Your task to perform on an android device: open app "Calculator" (install if not already installed) Image 0: 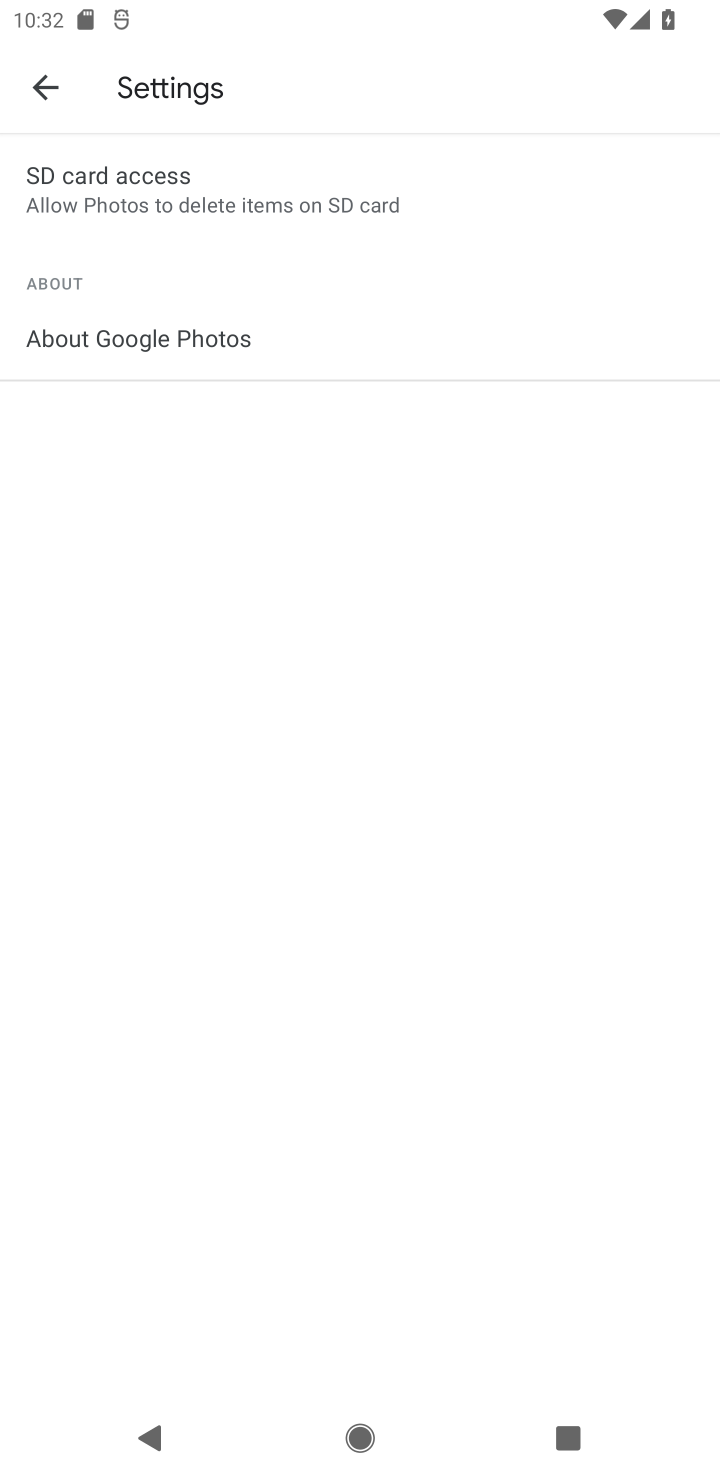
Step 0: press home button
Your task to perform on an android device: open app "Calculator" (install if not already installed) Image 1: 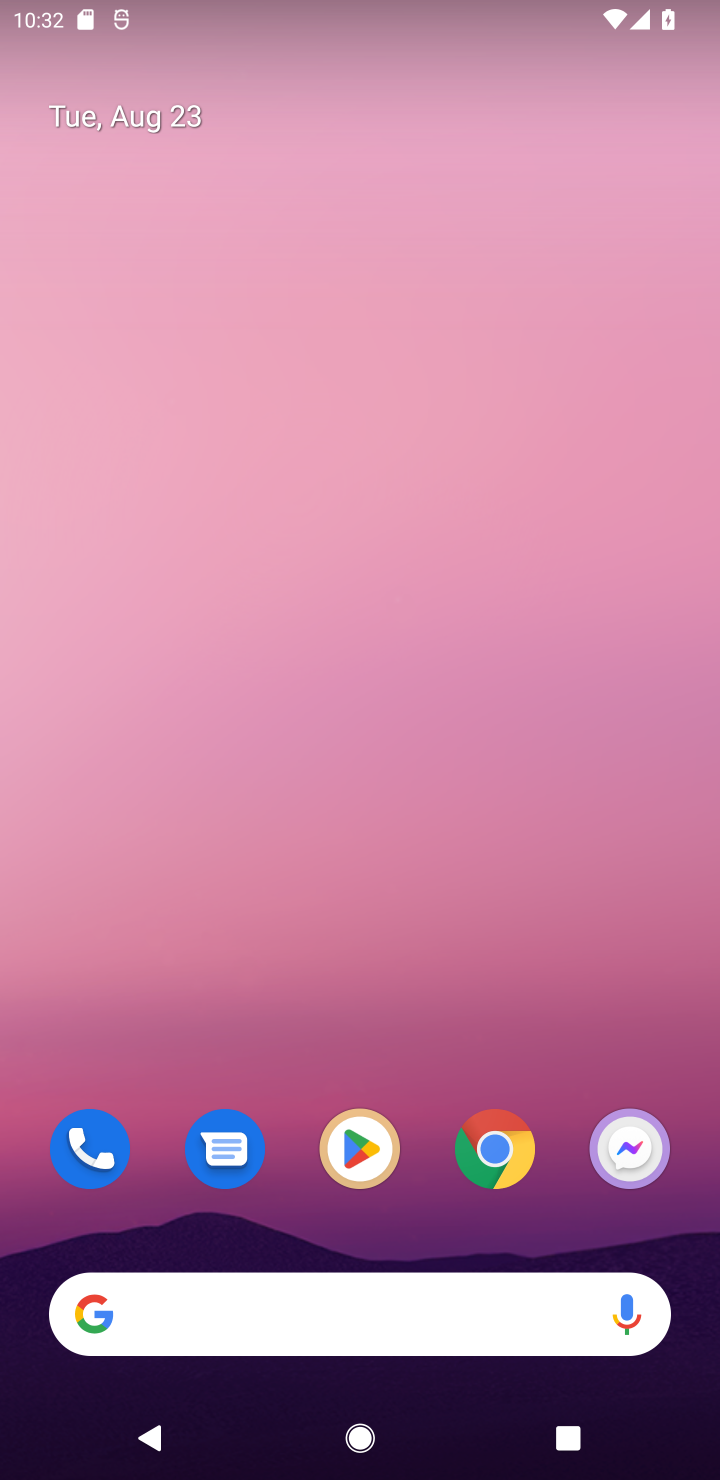
Step 1: click (317, 1147)
Your task to perform on an android device: open app "Calculator" (install if not already installed) Image 2: 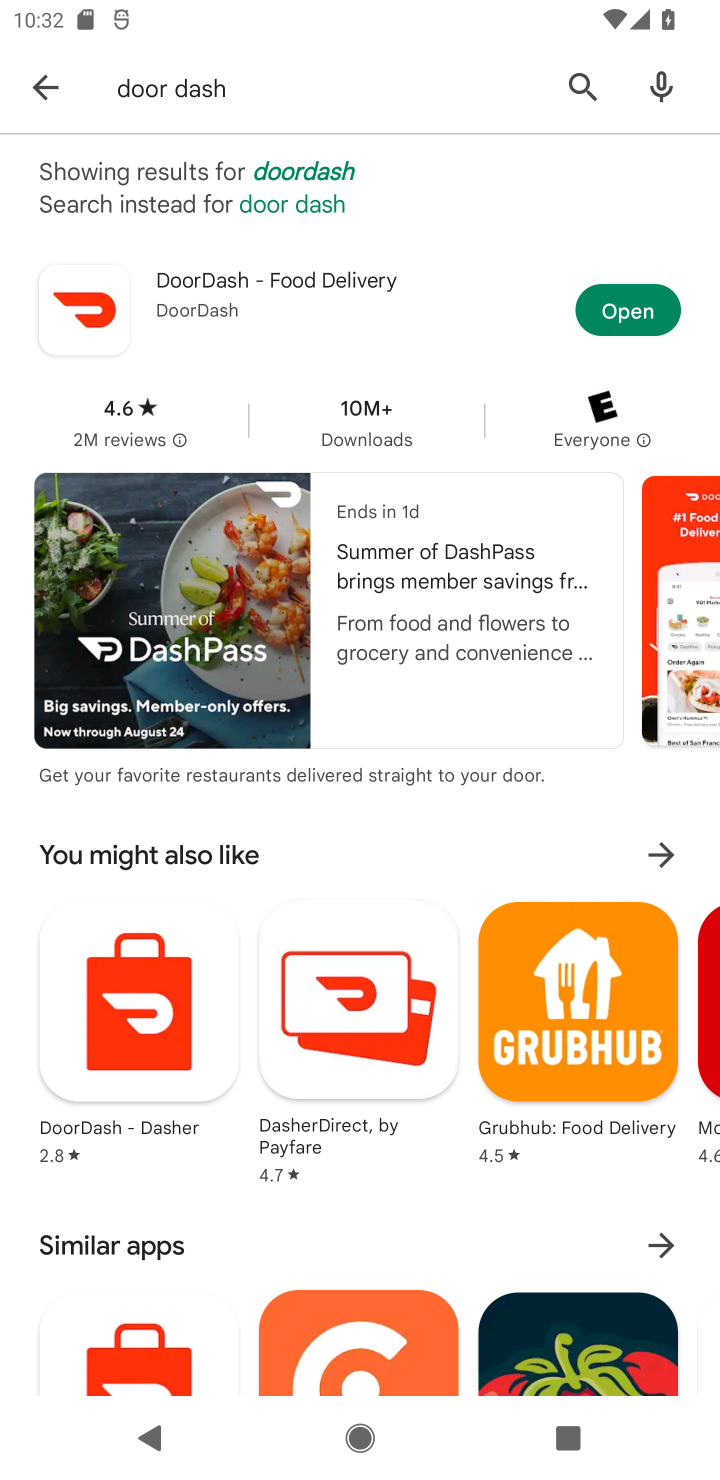
Step 2: click (572, 90)
Your task to perform on an android device: open app "Calculator" (install if not already installed) Image 3: 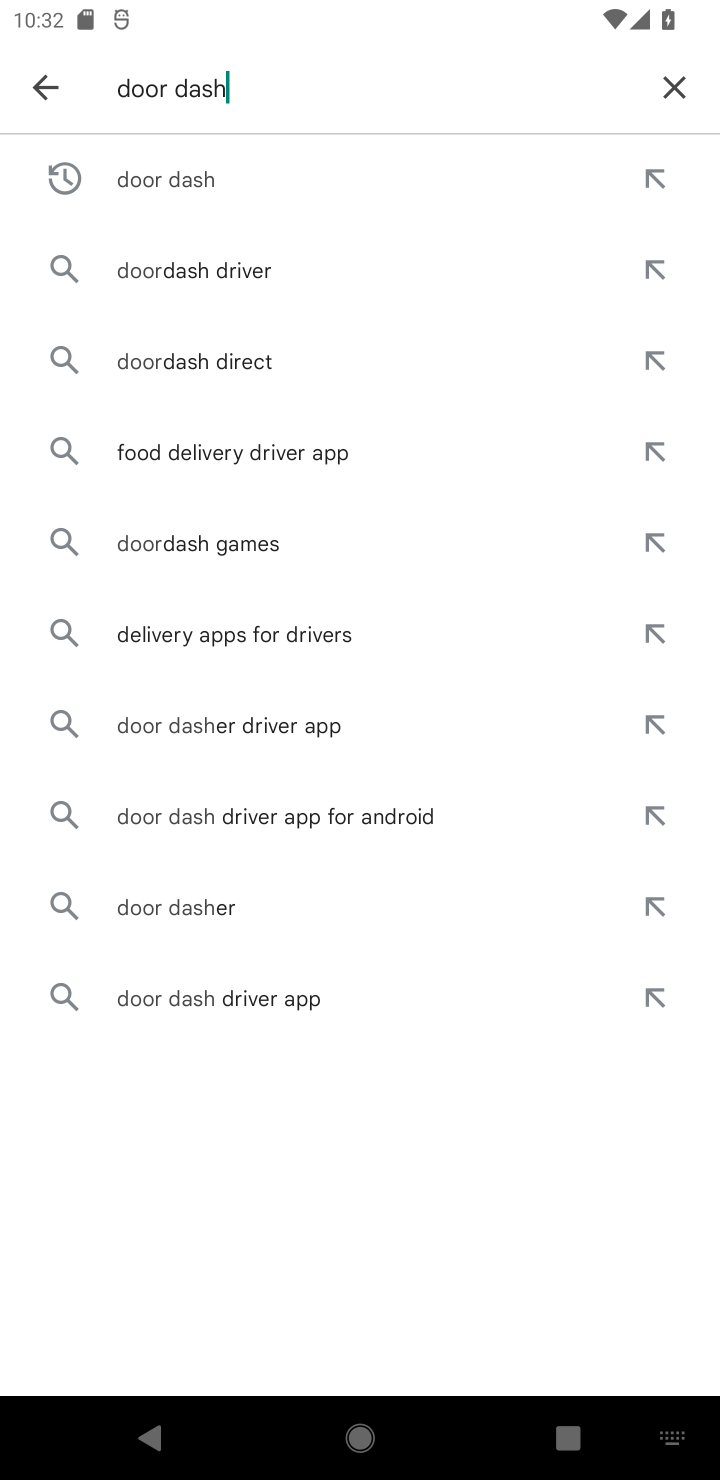
Step 3: click (657, 90)
Your task to perform on an android device: open app "Calculator" (install if not already installed) Image 4: 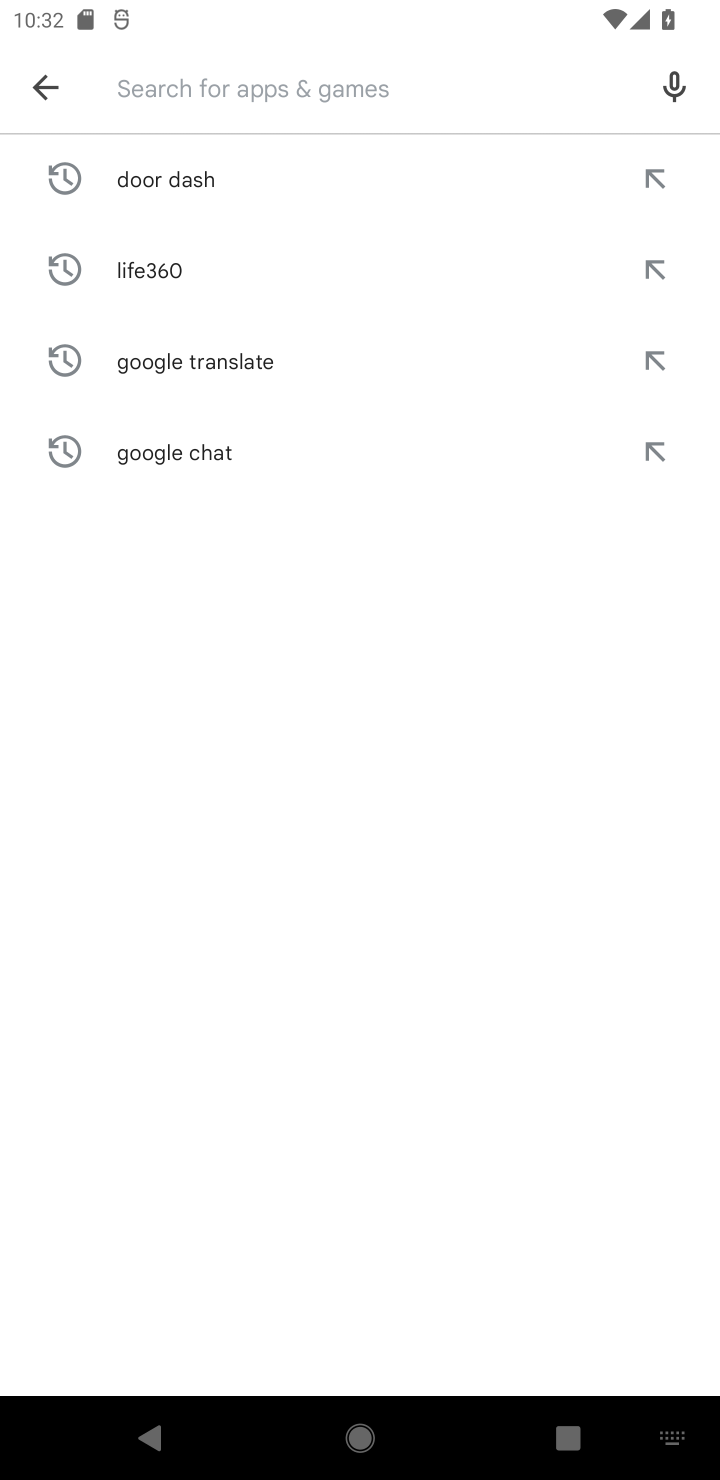
Step 4: type "calculator"
Your task to perform on an android device: open app "Calculator" (install if not already installed) Image 5: 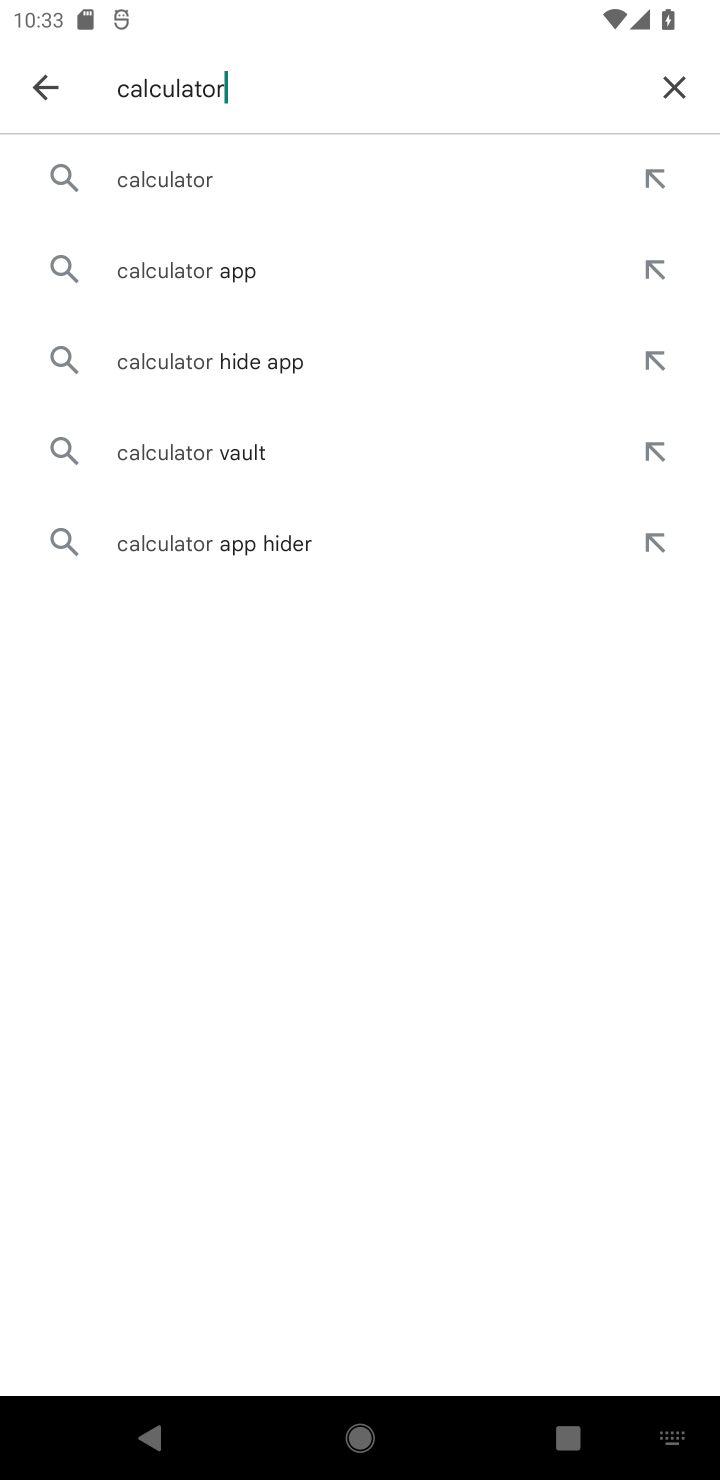
Step 5: click (206, 177)
Your task to perform on an android device: open app "Calculator" (install if not already installed) Image 6: 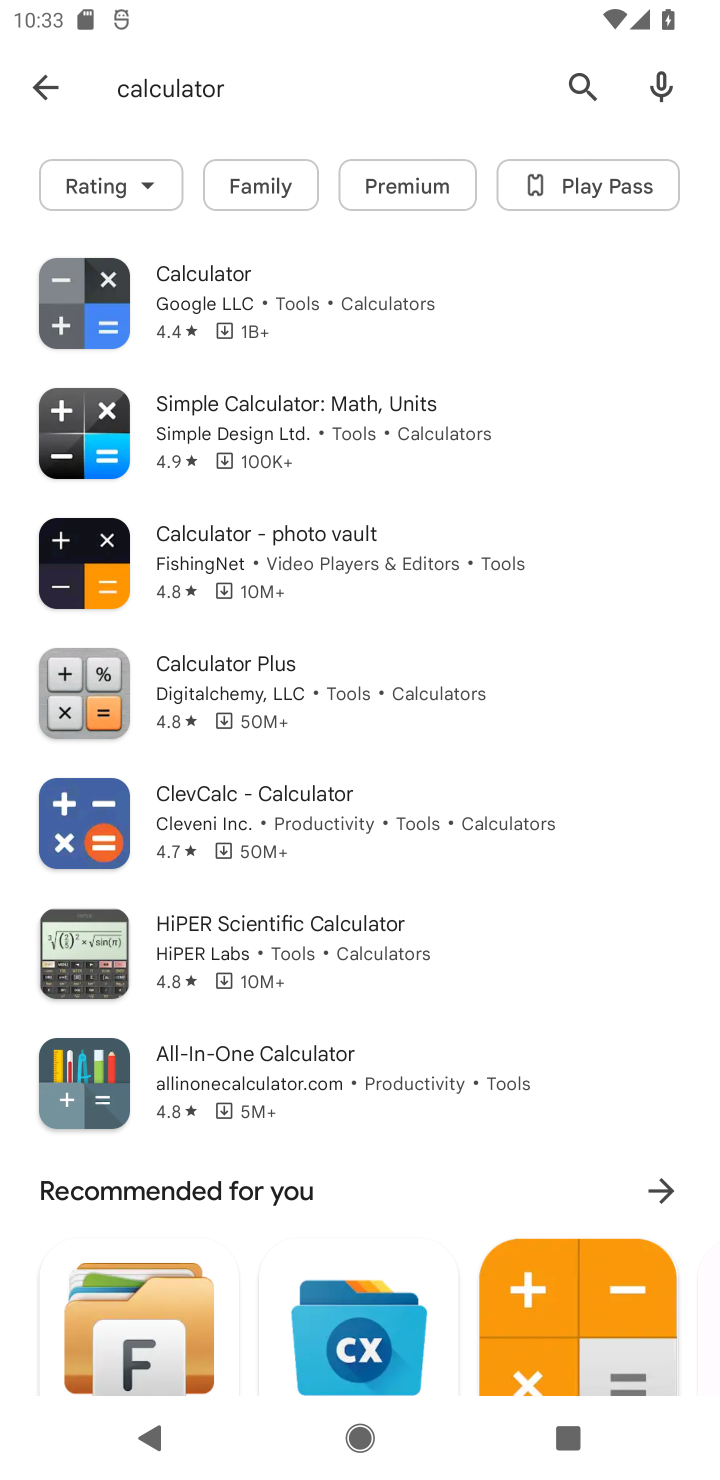
Step 6: click (330, 274)
Your task to perform on an android device: open app "Calculator" (install if not already installed) Image 7: 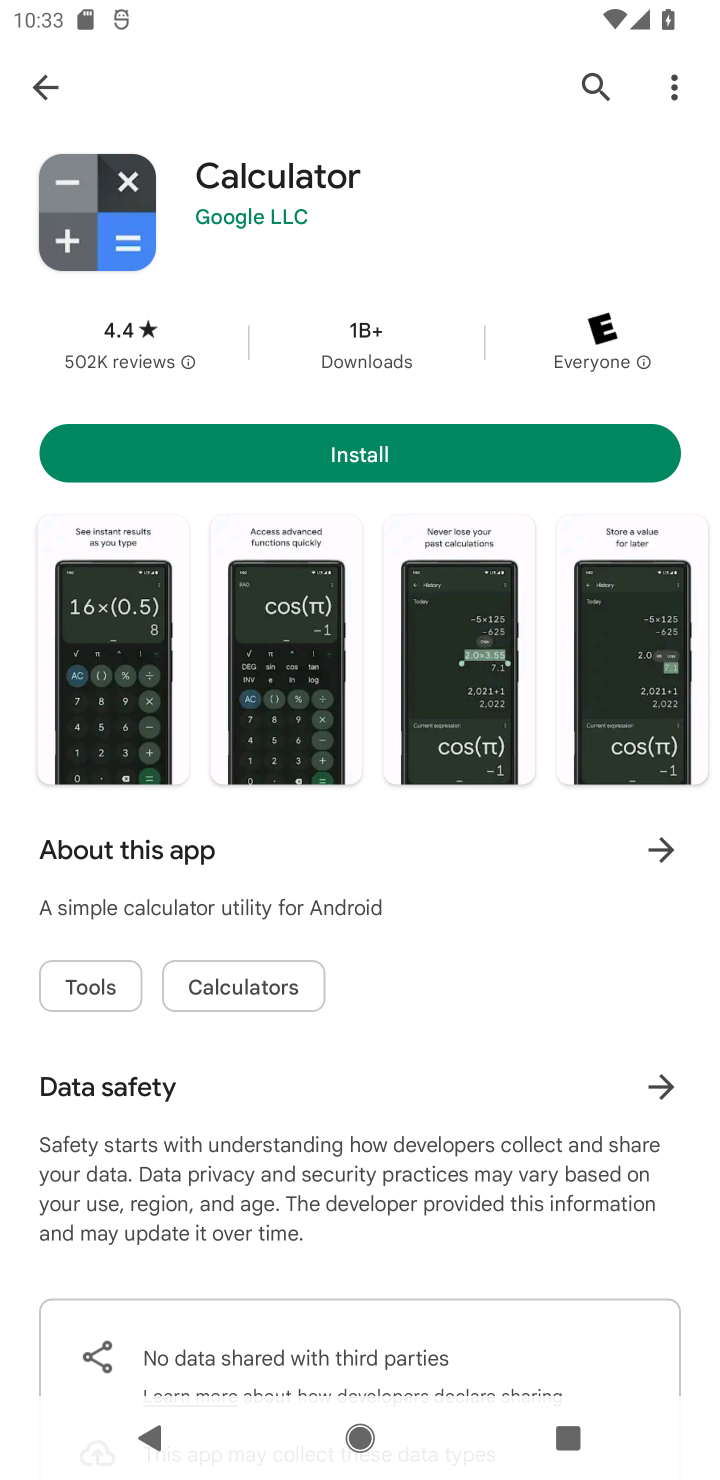
Step 7: click (379, 439)
Your task to perform on an android device: open app "Calculator" (install if not already installed) Image 8: 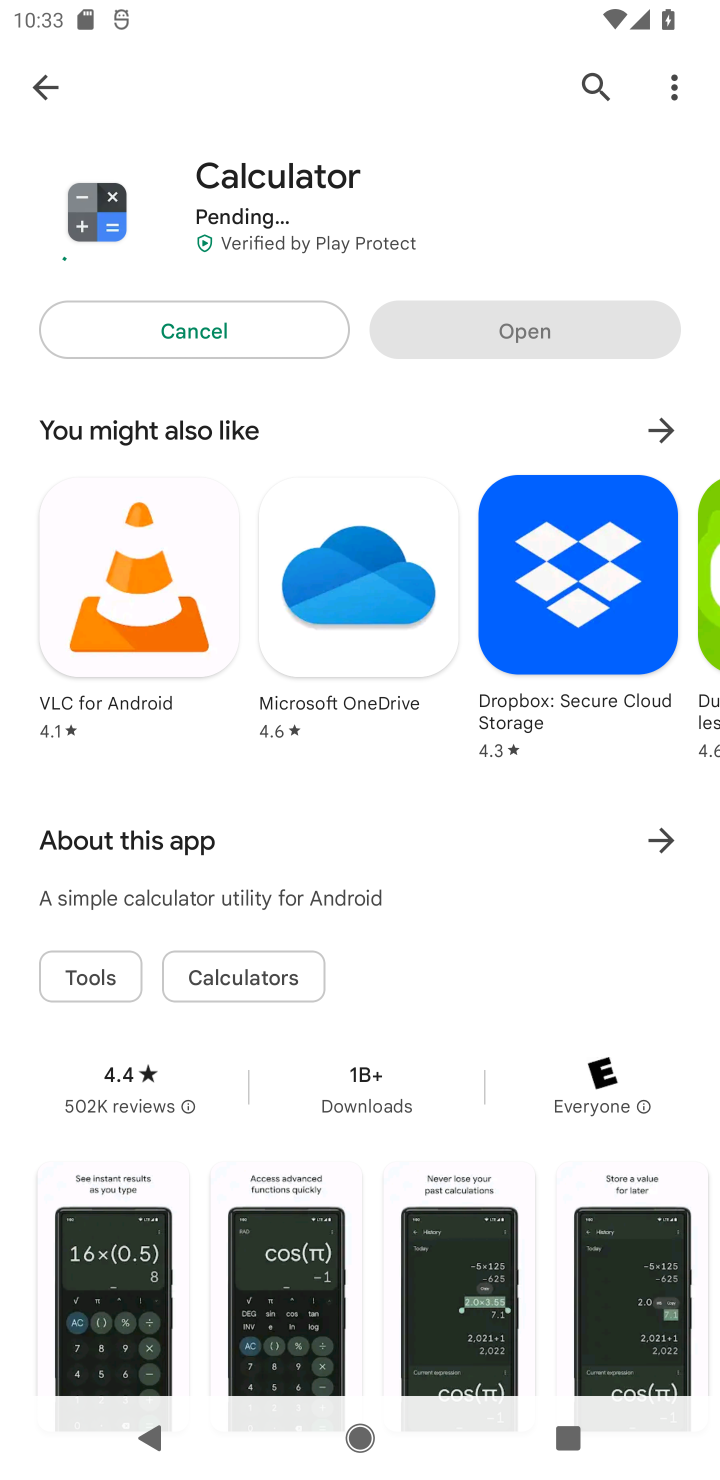
Step 8: task complete